Your task to perform on an android device: search for starred emails in the gmail app Image 0: 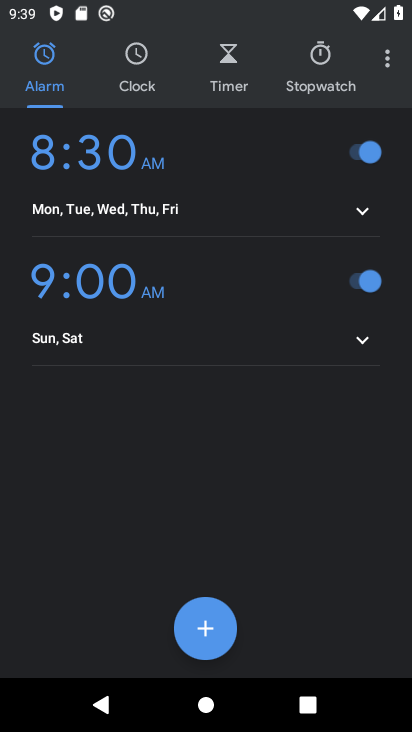
Step 0: press home button
Your task to perform on an android device: search for starred emails in the gmail app Image 1: 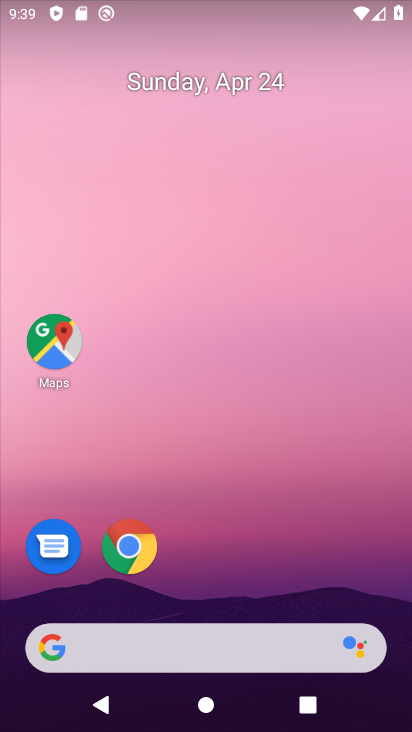
Step 1: drag from (247, 525) to (238, 227)
Your task to perform on an android device: search for starred emails in the gmail app Image 2: 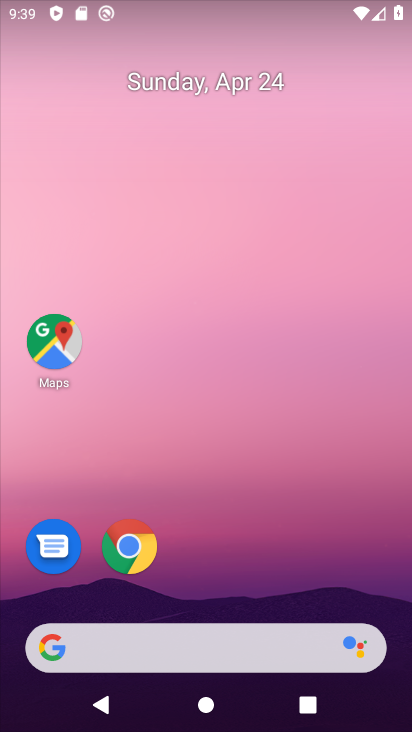
Step 2: drag from (247, 547) to (201, 170)
Your task to perform on an android device: search for starred emails in the gmail app Image 3: 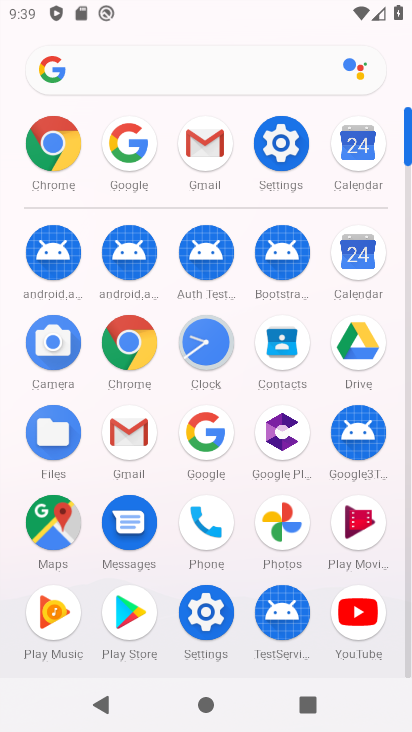
Step 3: click (119, 434)
Your task to perform on an android device: search for starred emails in the gmail app Image 4: 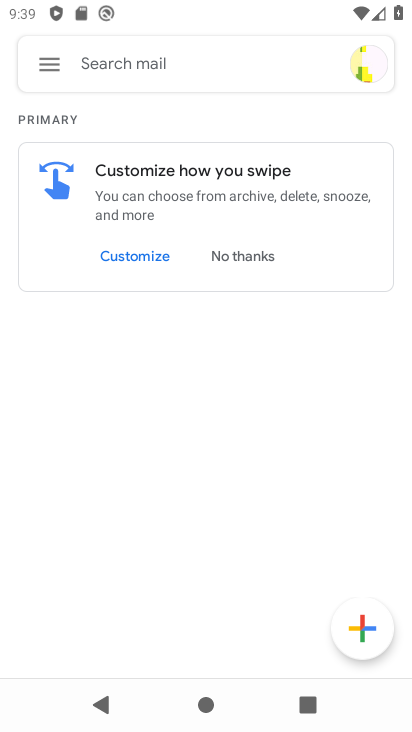
Step 4: click (61, 70)
Your task to perform on an android device: search for starred emails in the gmail app Image 5: 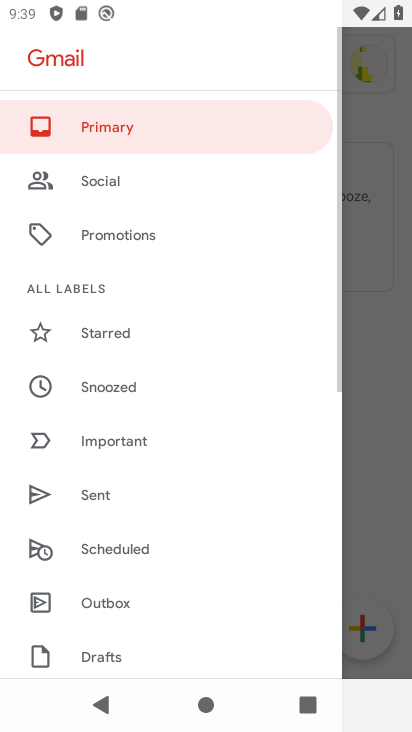
Step 5: drag from (205, 633) to (176, 237)
Your task to perform on an android device: search for starred emails in the gmail app Image 6: 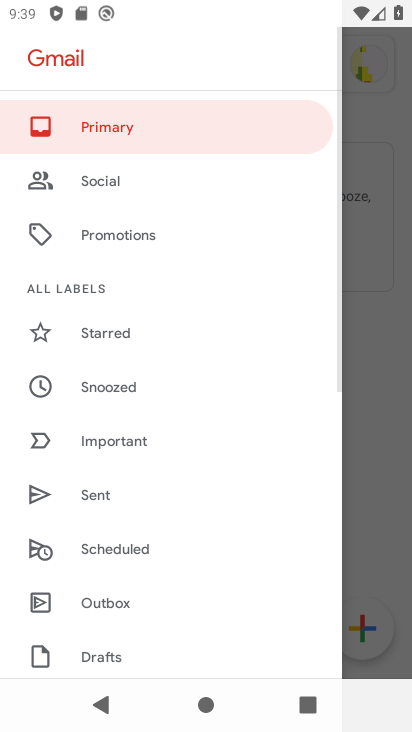
Step 6: drag from (174, 515) to (238, 176)
Your task to perform on an android device: search for starred emails in the gmail app Image 7: 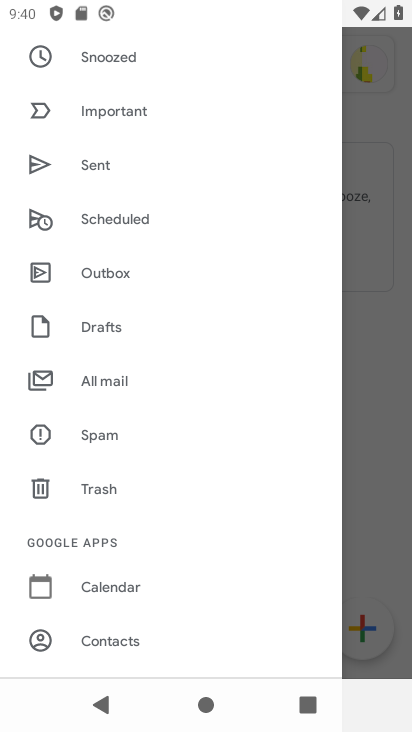
Step 7: click (133, 372)
Your task to perform on an android device: search for starred emails in the gmail app Image 8: 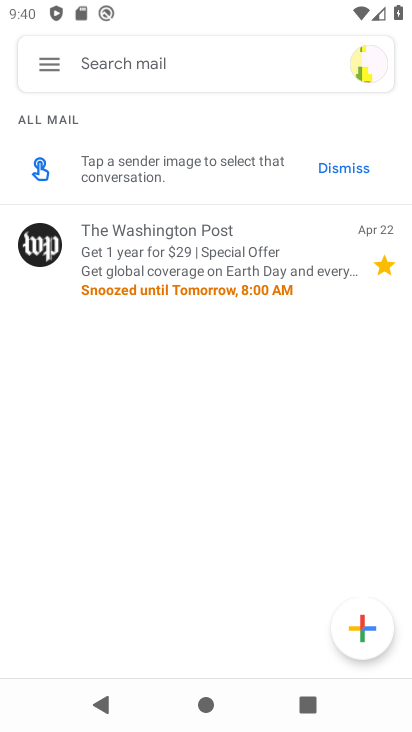
Step 8: task complete